Your task to perform on an android device: turn off airplane mode Image 0: 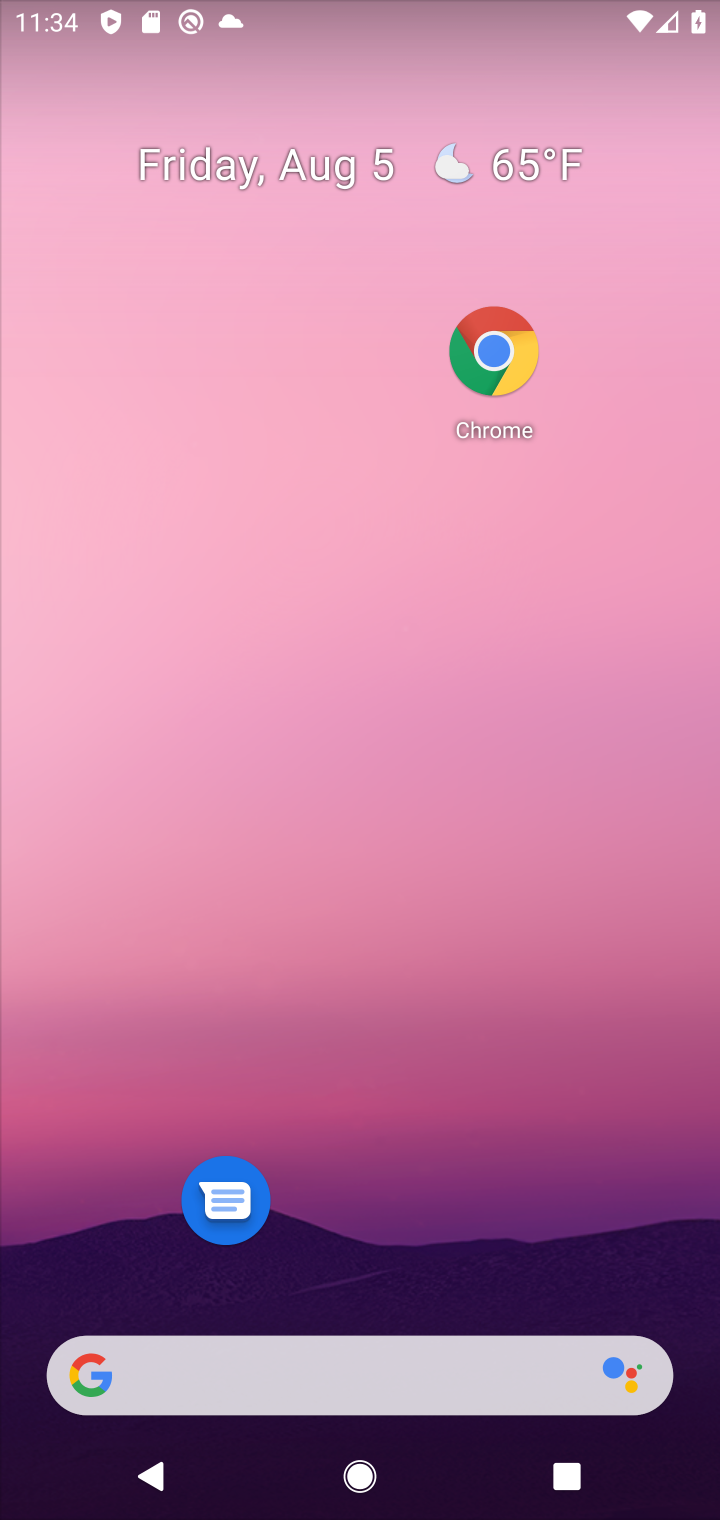
Step 0: drag from (397, 1003) to (591, 232)
Your task to perform on an android device: turn off airplane mode Image 1: 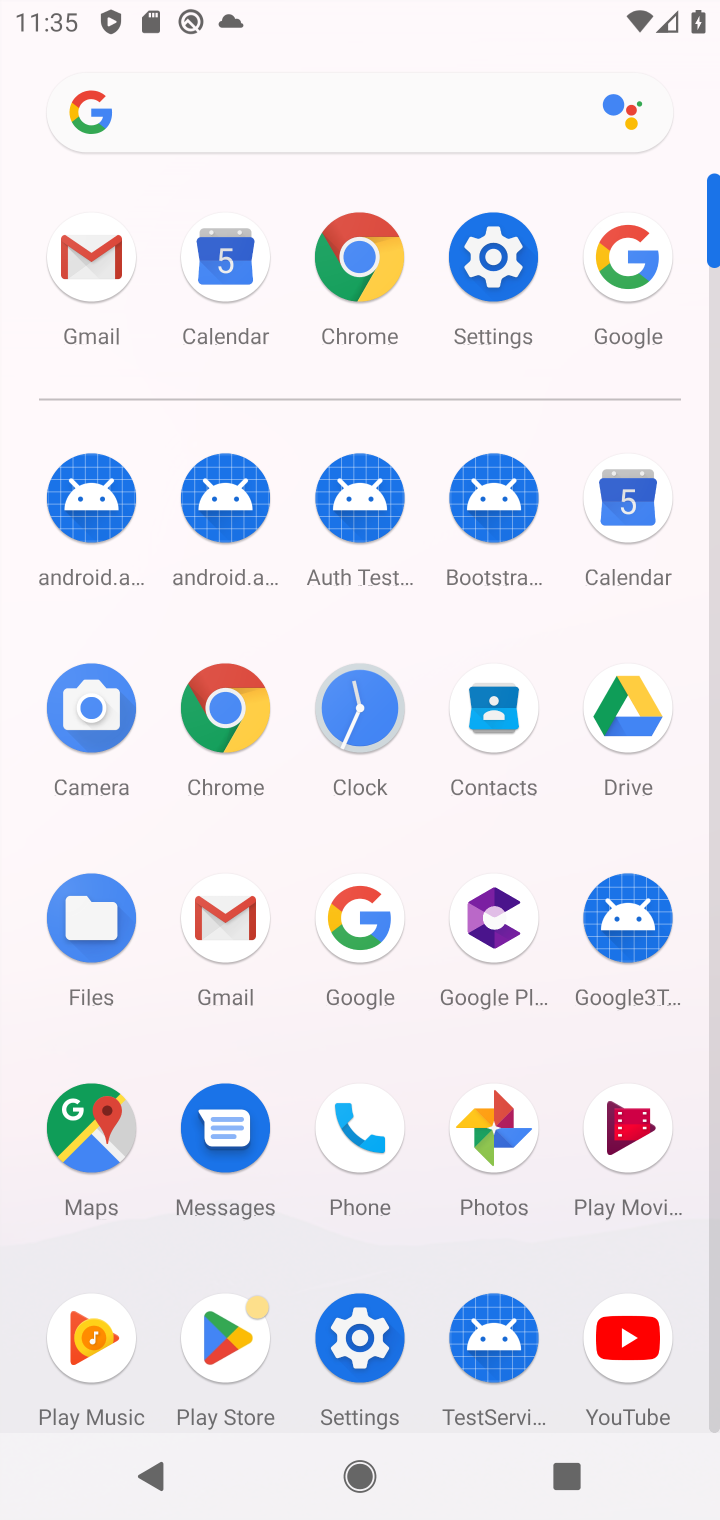
Step 1: click (512, 286)
Your task to perform on an android device: turn off airplane mode Image 2: 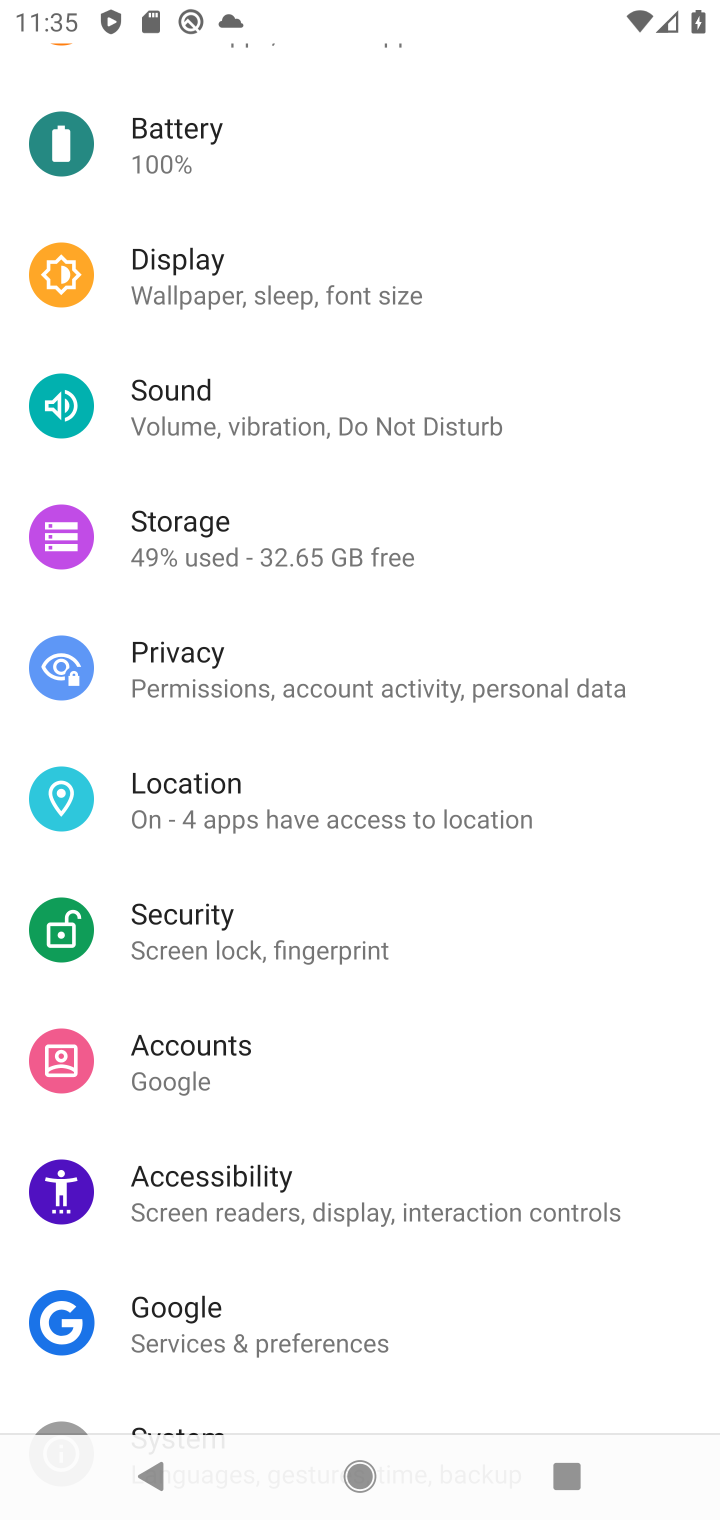
Step 2: drag from (327, 613) to (330, 1355)
Your task to perform on an android device: turn off airplane mode Image 3: 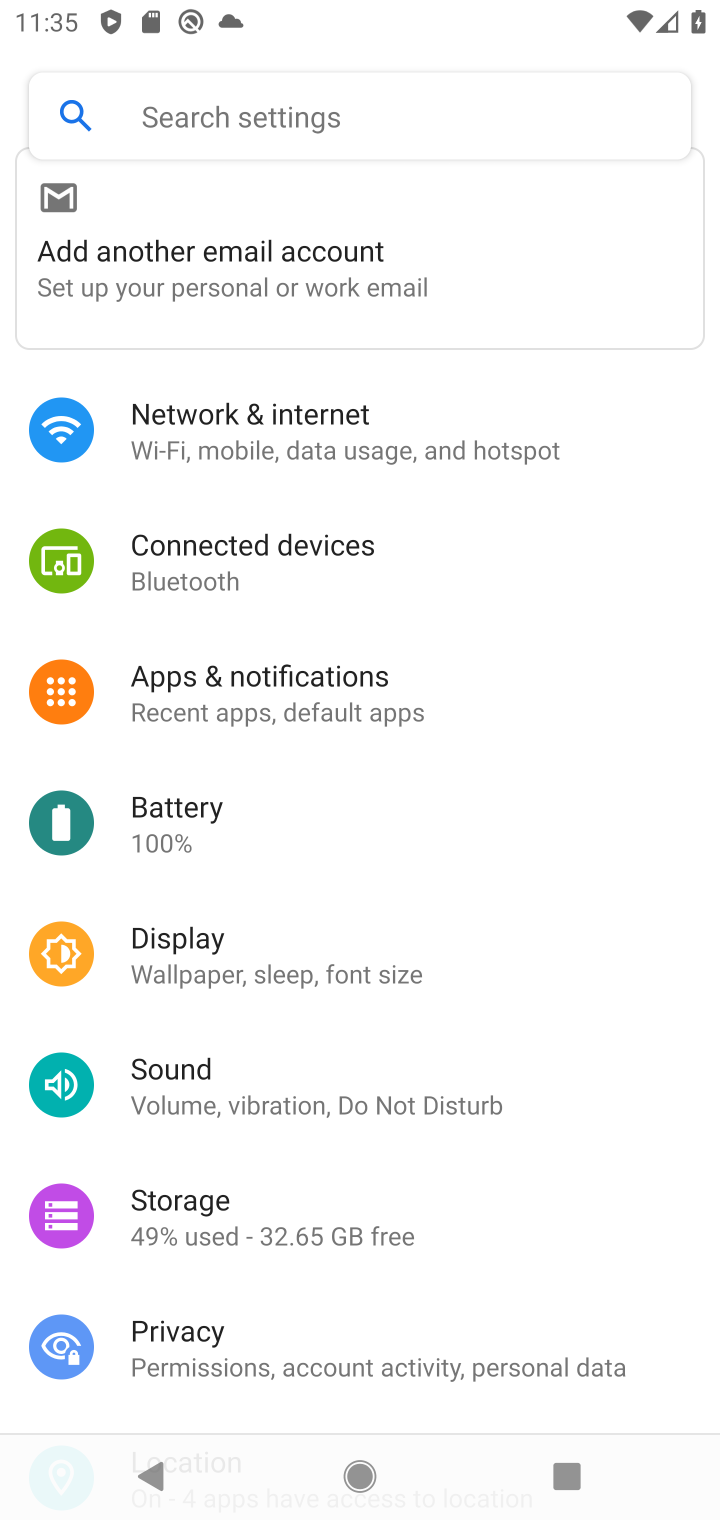
Step 3: drag from (310, 812) to (223, 1437)
Your task to perform on an android device: turn off airplane mode Image 4: 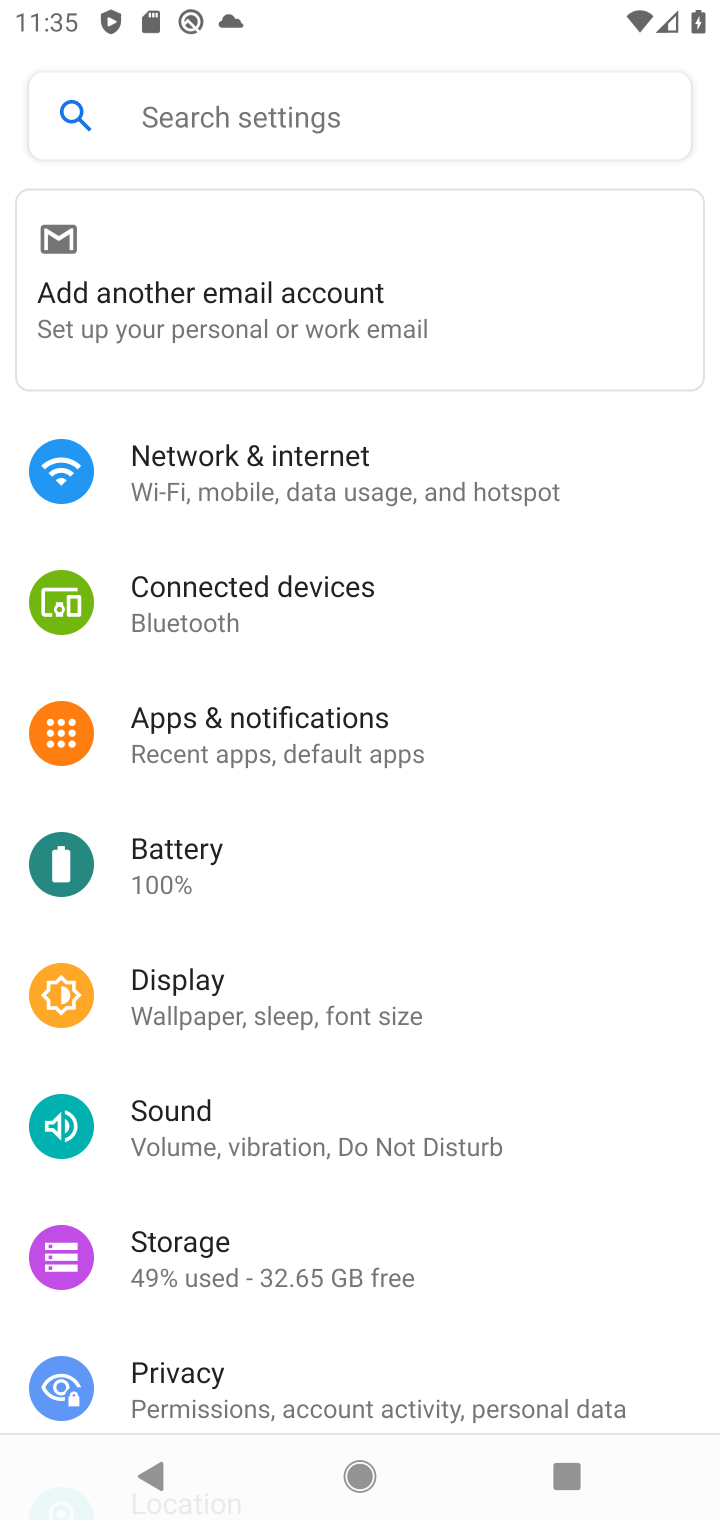
Step 4: click (390, 481)
Your task to perform on an android device: turn off airplane mode Image 5: 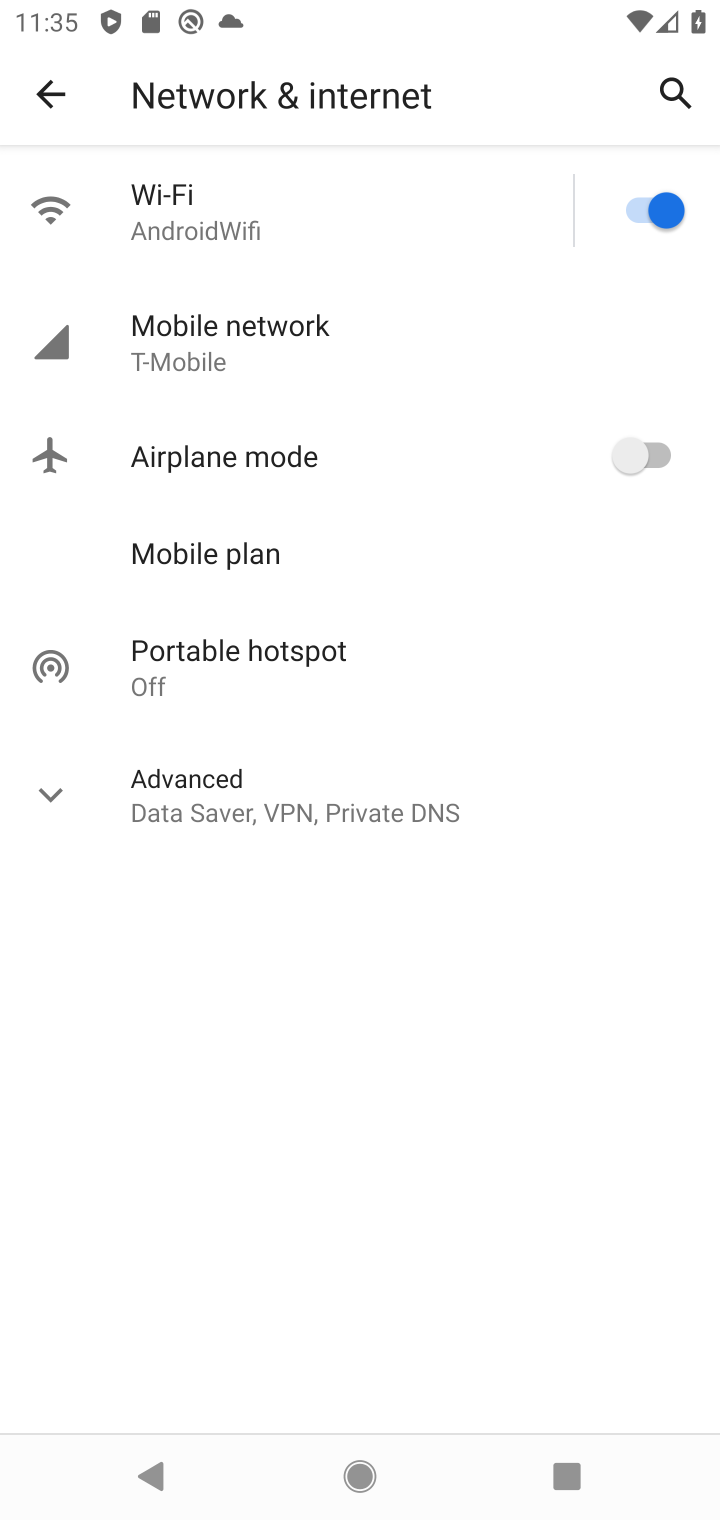
Step 5: task complete